Your task to perform on an android device: turn off sleep mode Image 0: 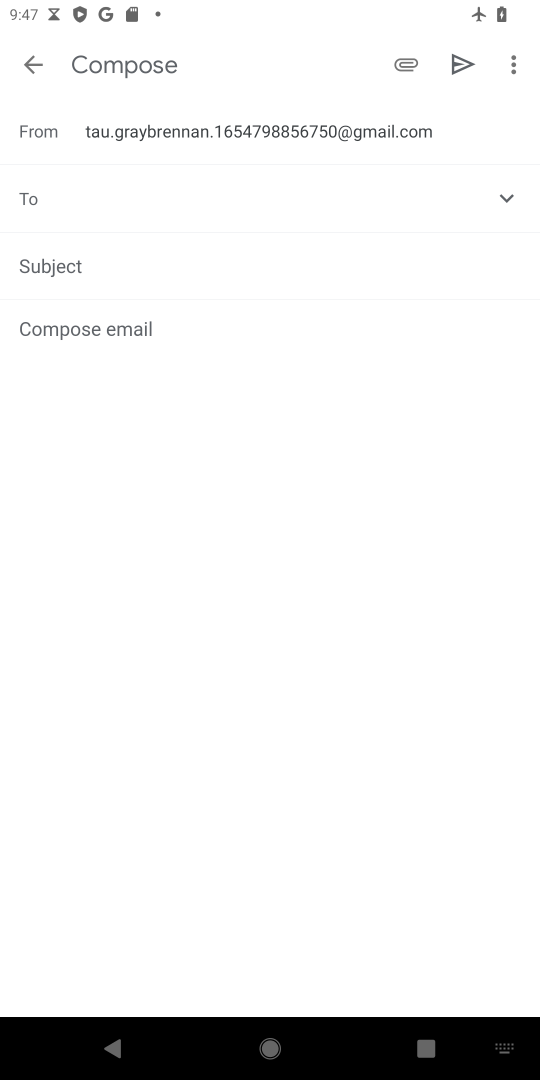
Step 0: press home button
Your task to perform on an android device: turn off sleep mode Image 1: 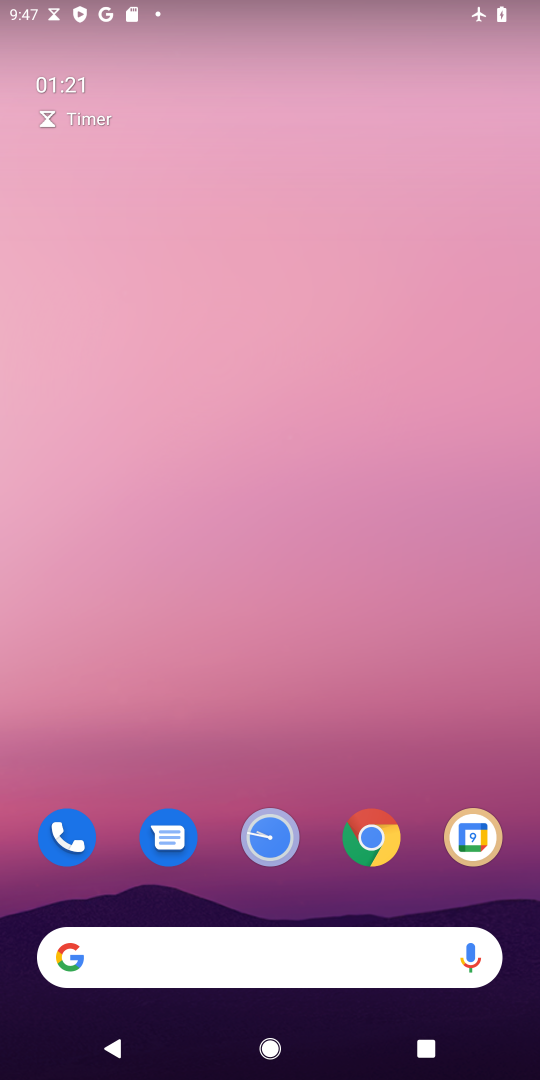
Step 1: drag from (298, 924) to (365, 206)
Your task to perform on an android device: turn off sleep mode Image 2: 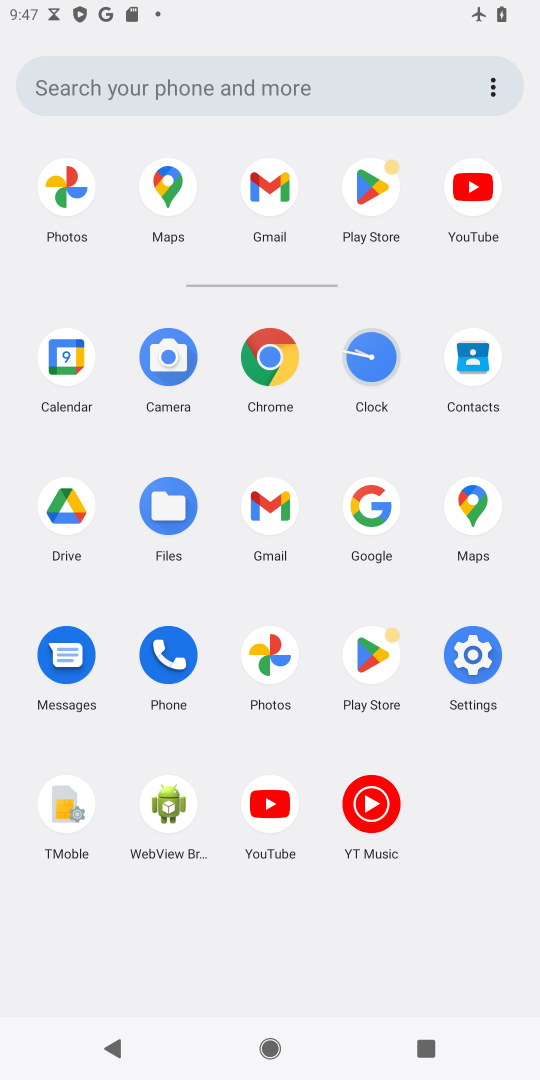
Step 2: click (451, 659)
Your task to perform on an android device: turn off sleep mode Image 3: 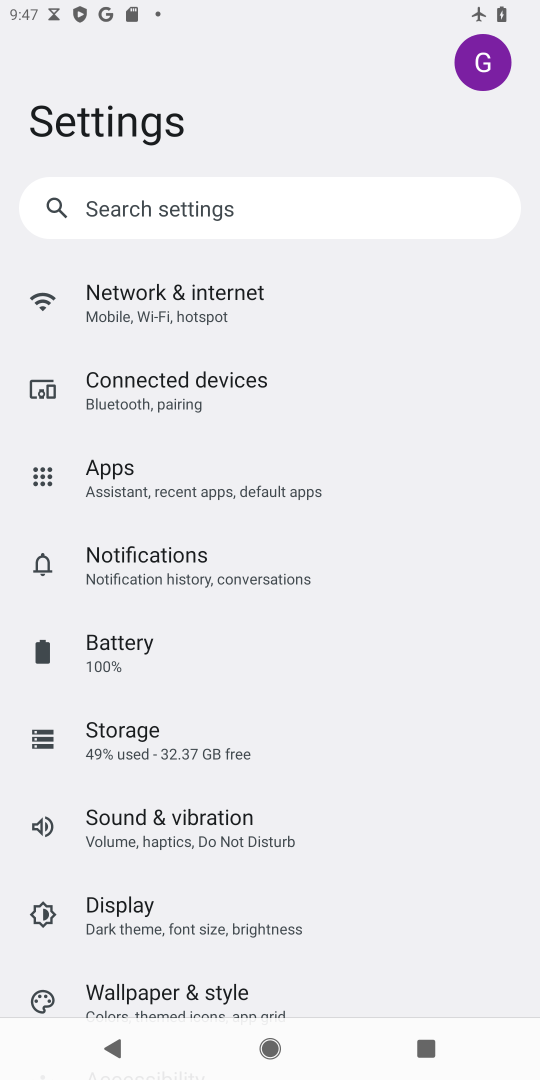
Step 3: click (143, 902)
Your task to perform on an android device: turn off sleep mode Image 4: 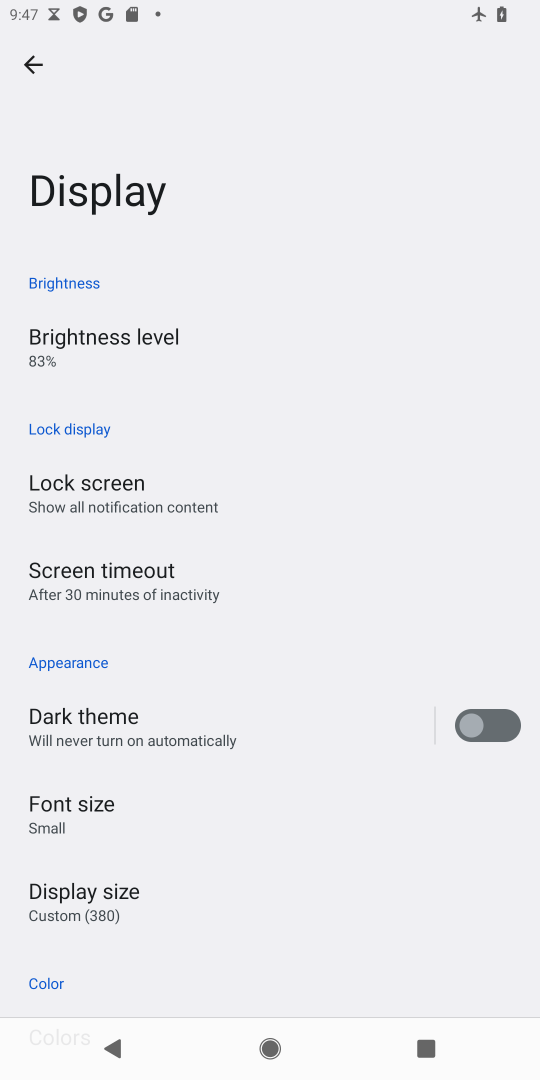
Step 4: task complete